Your task to perform on an android device: see sites visited before in the chrome app Image 0: 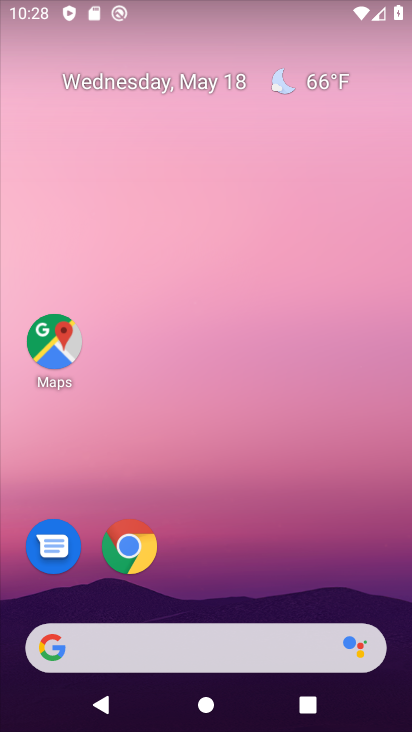
Step 0: click (129, 559)
Your task to perform on an android device: see sites visited before in the chrome app Image 1: 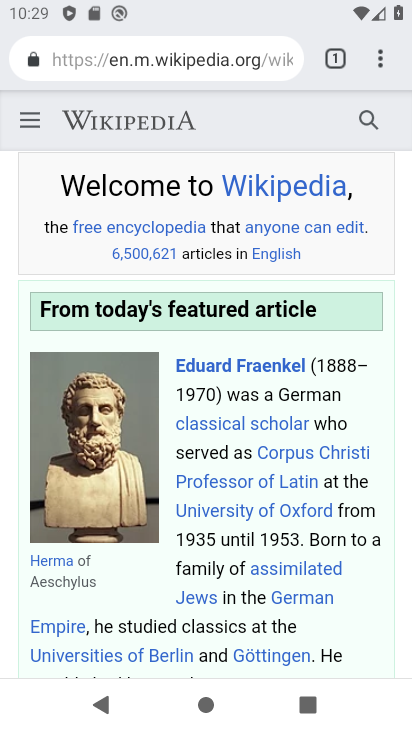
Step 1: click (394, 61)
Your task to perform on an android device: see sites visited before in the chrome app Image 2: 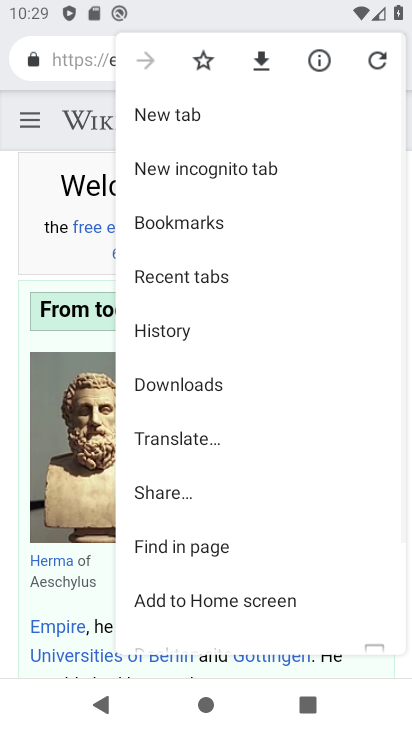
Step 2: click (173, 288)
Your task to perform on an android device: see sites visited before in the chrome app Image 3: 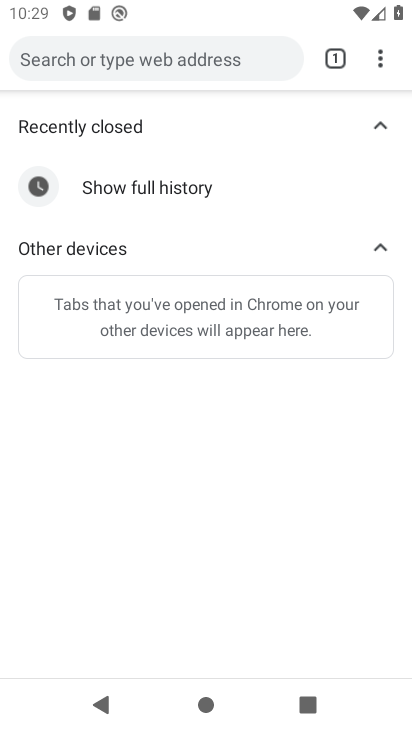
Step 3: task complete